Your task to perform on an android device: read, delete, or share a saved page in the chrome app Image 0: 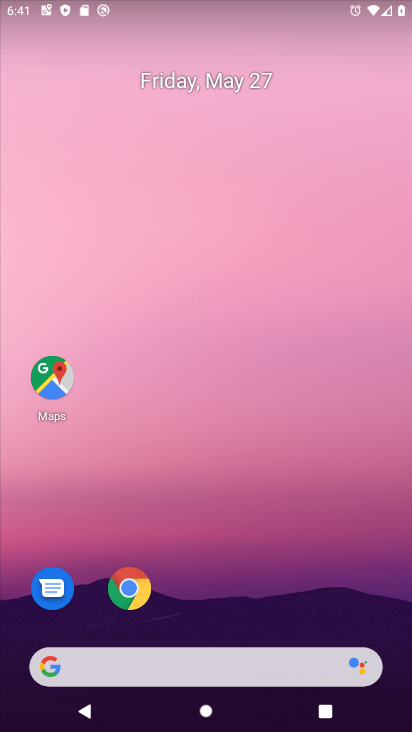
Step 0: click (131, 592)
Your task to perform on an android device: read, delete, or share a saved page in the chrome app Image 1: 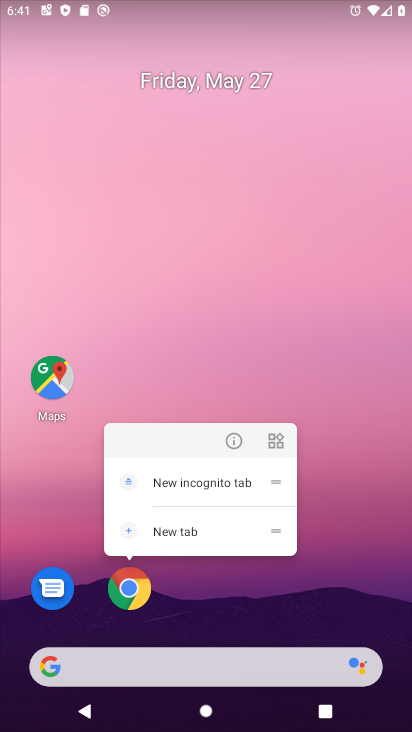
Step 1: click (144, 582)
Your task to perform on an android device: read, delete, or share a saved page in the chrome app Image 2: 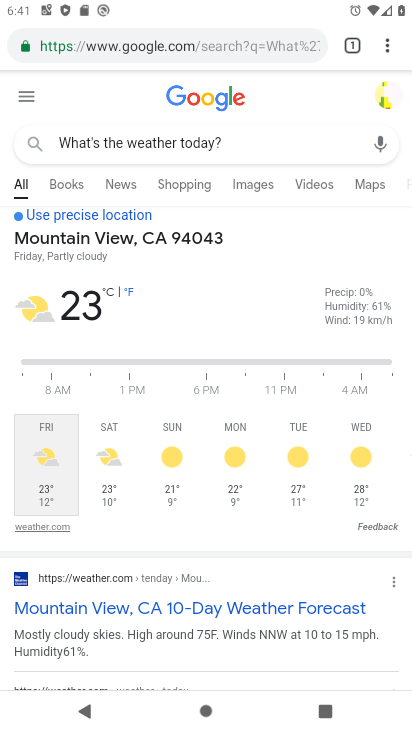
Step 2: drag from (381, 46) to (227, 294)
Your task to perform on an android device: read, delete, or share a saved page in the chrome app Image 3: 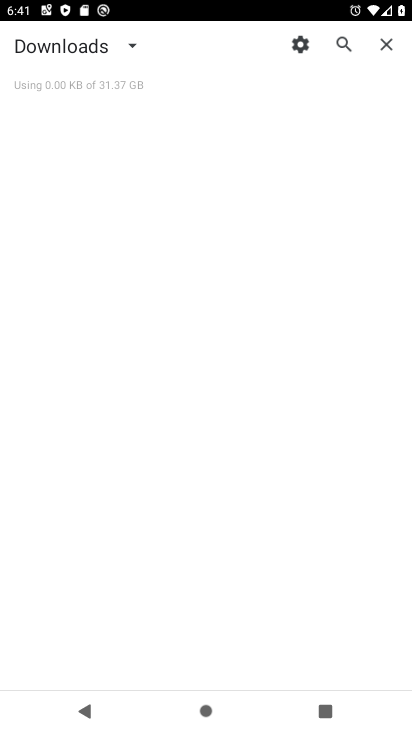
Step 3: click (128, 44)
Your task to perform on an android device: read, delete, or share a saved page in the chrome app Image 4: 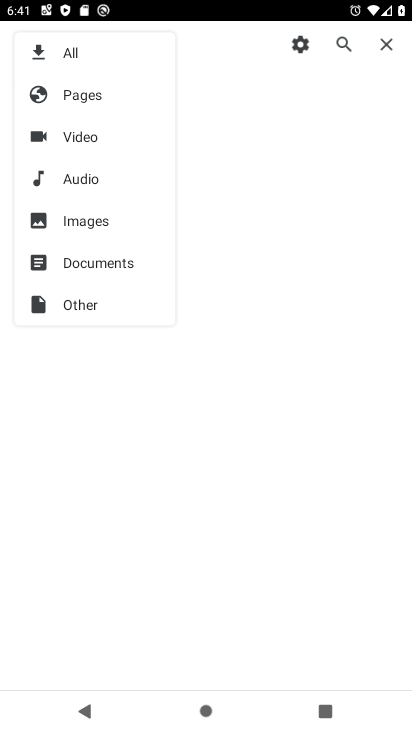
Step 4: click (41, 98)
Your task to perform on an android device: read, delete, or share a saved page in the chrome app Image 5: 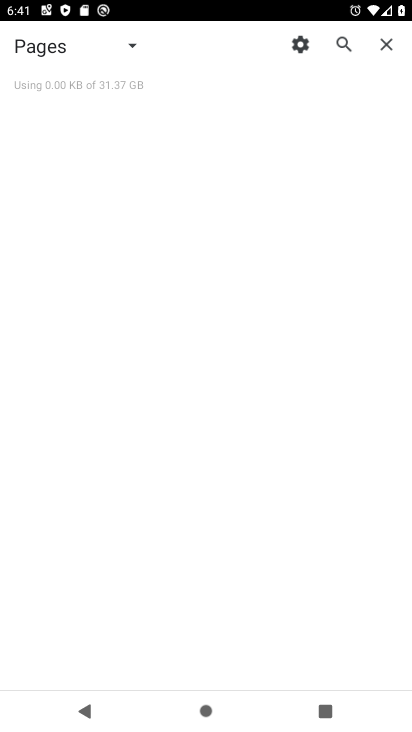
Step 5: task complete